Your task to perform on an android device: turn off wifi Image 0: 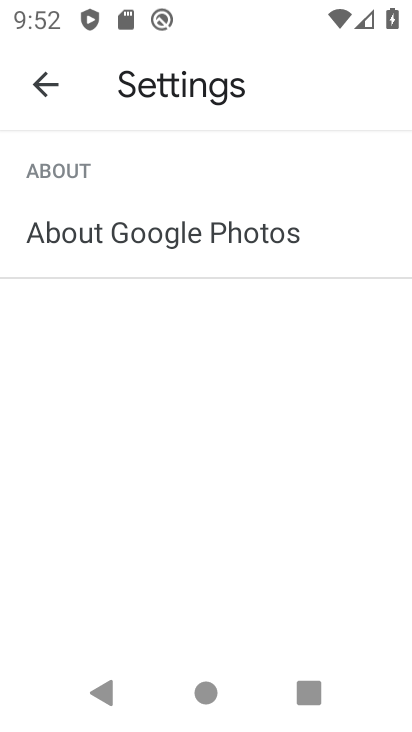
Step 0: press home button
Your task to perform on an android device: turn off wifi Image 1: 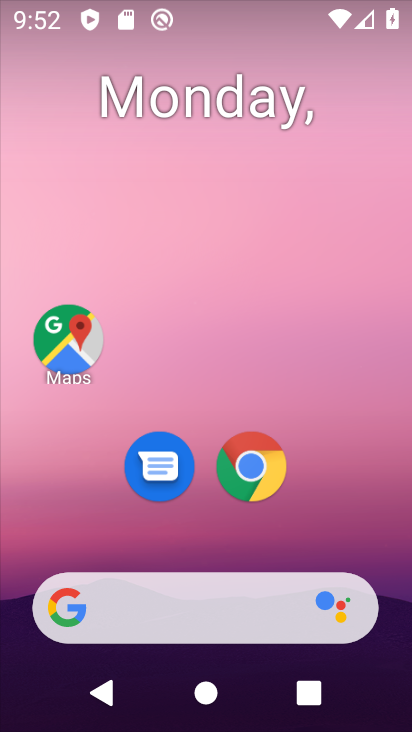
Step 1: drag from (353, 1) to (348, 724)
Your task to perform on an android device: turn off wifi Image 2: 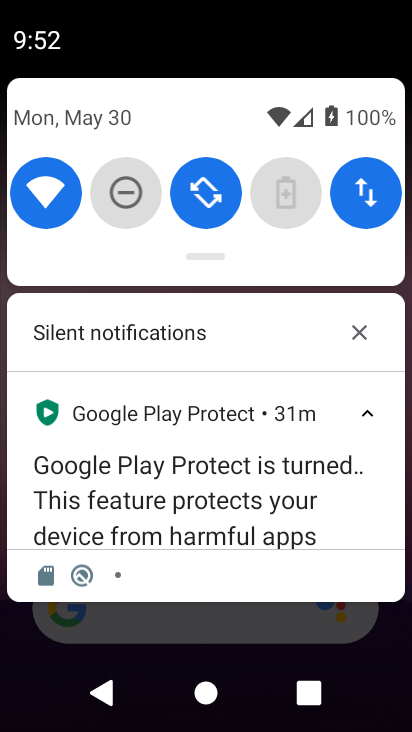
Step 2: click (57, 195)
Your task to perform on an android device: turn off wifi Image 3: 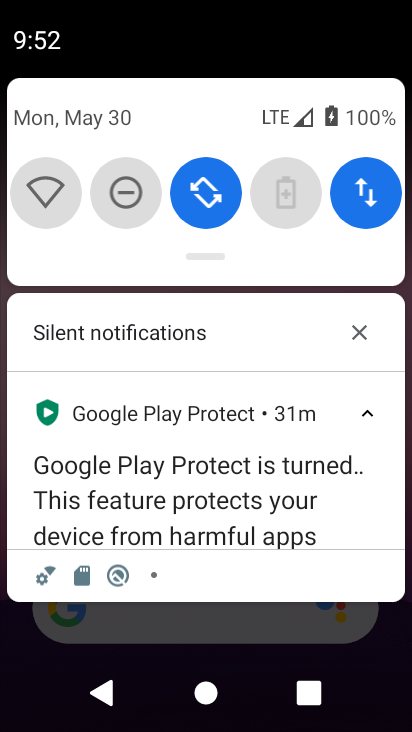
Step 3: task complete